Your task to perform on an android device: turn pop-ups on in chrome Image 0: 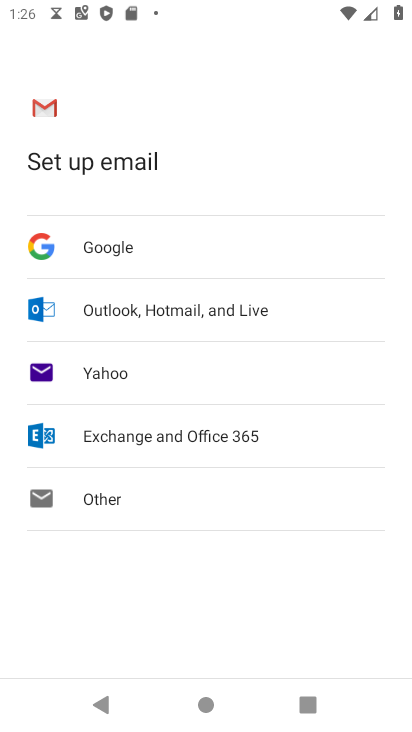
Step 0: press home button
Your task to perform on an android device: turn pop-ups on in chrome Image 1: 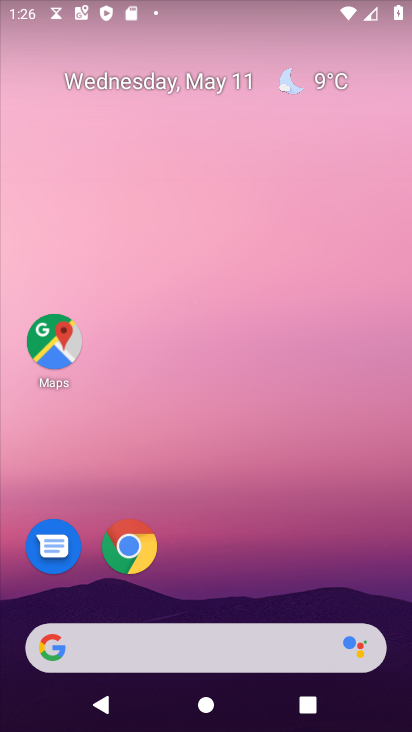
Step 1: drag from (261, 625) to (321, 5)
Your task to perform on an android device: turn pop-ups on in chrome Image 2: 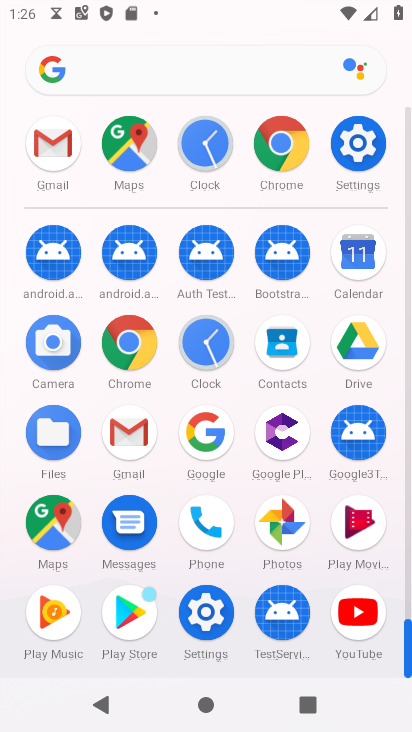
Step 2: click (139, 346)
Your task to perform on an android device: turn pop-ups on in chrome Image 3: 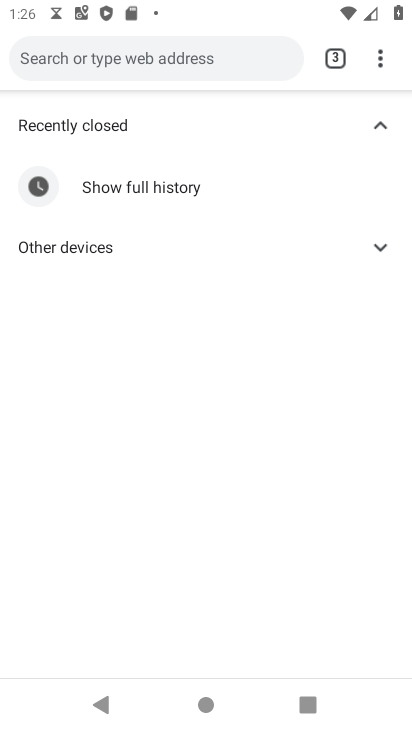
Step 3: click (379, 58)
Your task to perform on an android device: turn pop-ups on in chrome Image 4: 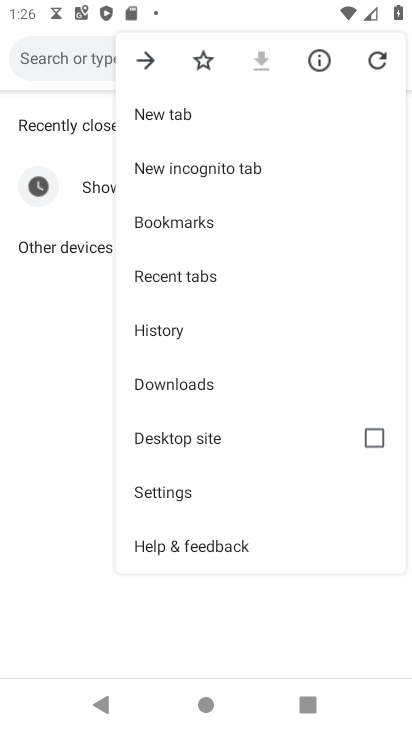
Step 4: click (208, 494)
Your task to perform on an android device: turn pop-ups on in chrome Image 5: 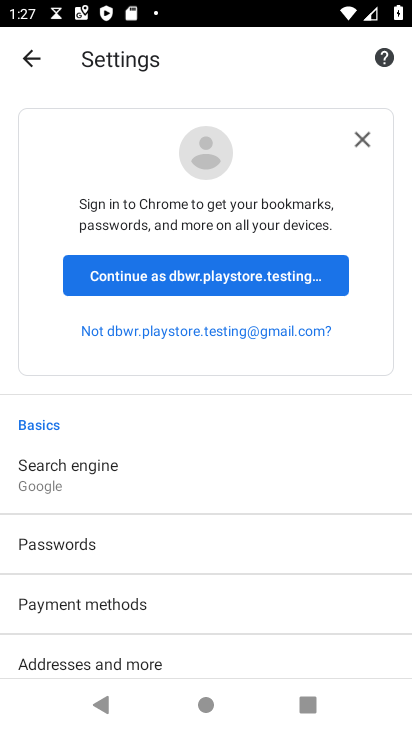
Step 5: drag from (210, 613) to (267, 97)
Your task to perform on an android device: turn pop-ups on in chrome Image 6: 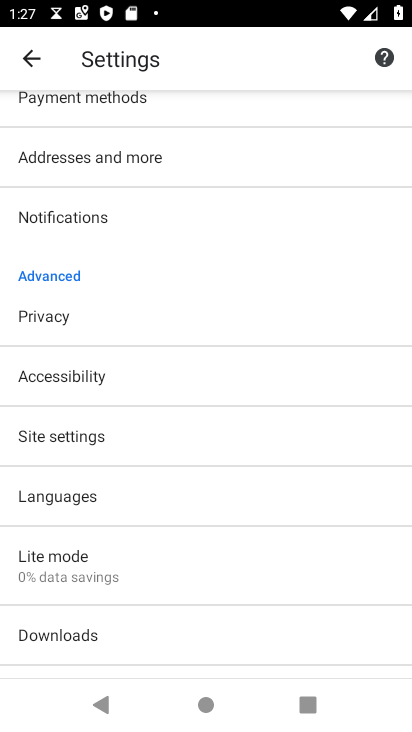
Step 6: click (123, 449)
Your task to perform on an android device: turn pop-ups on in chrome Image 7: 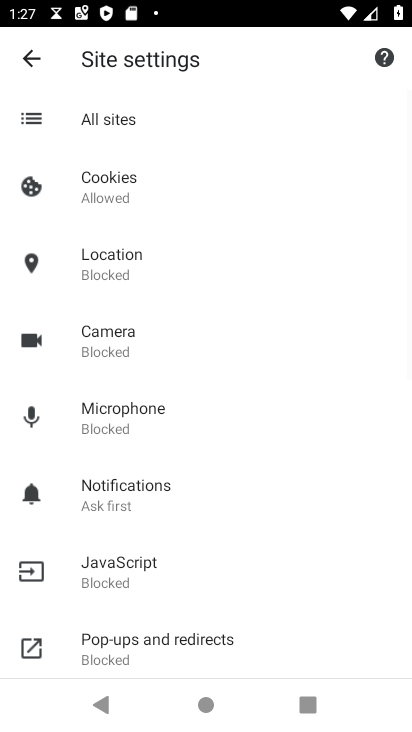
Step 7: drag from (240, 650) to (271, 361)
Your task to perform on an android device: turn pop-ups on in chrome Image 8: 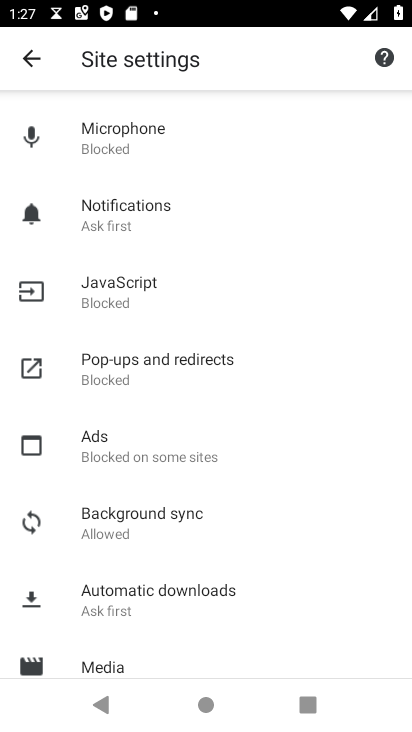
Step 8: click (210, 379)
Your task to perform on an android device: turn pop-ups on in chrome Image 9: 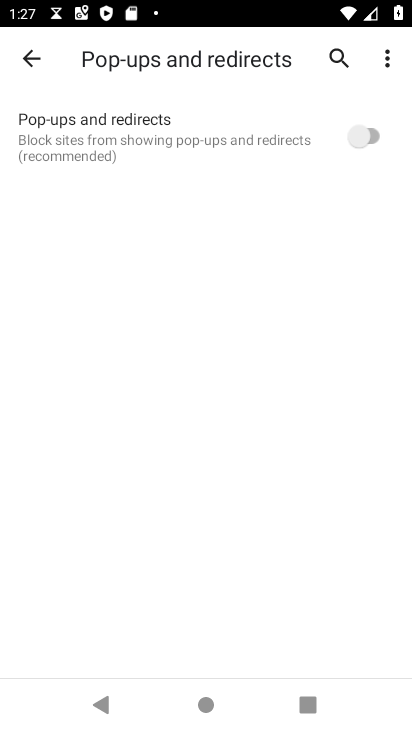
Step 9: click (372, 135)
Your task to perform on an android device: turn pop-ups on in chrome Image 10: 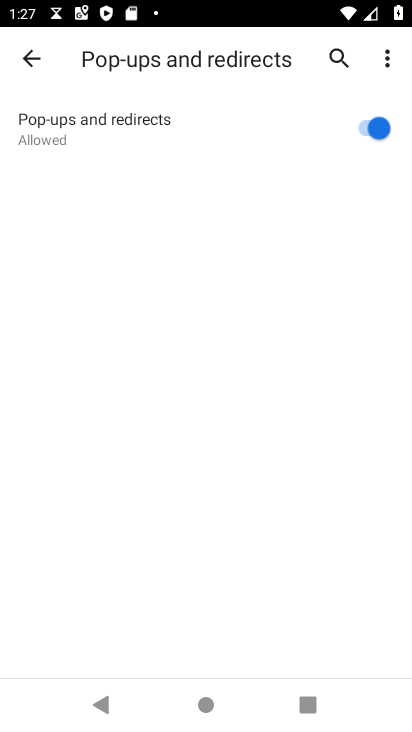
Step 10: task complete